Your task to perform on an android device: Open calendar and show me the fourth week of next month Image 0: 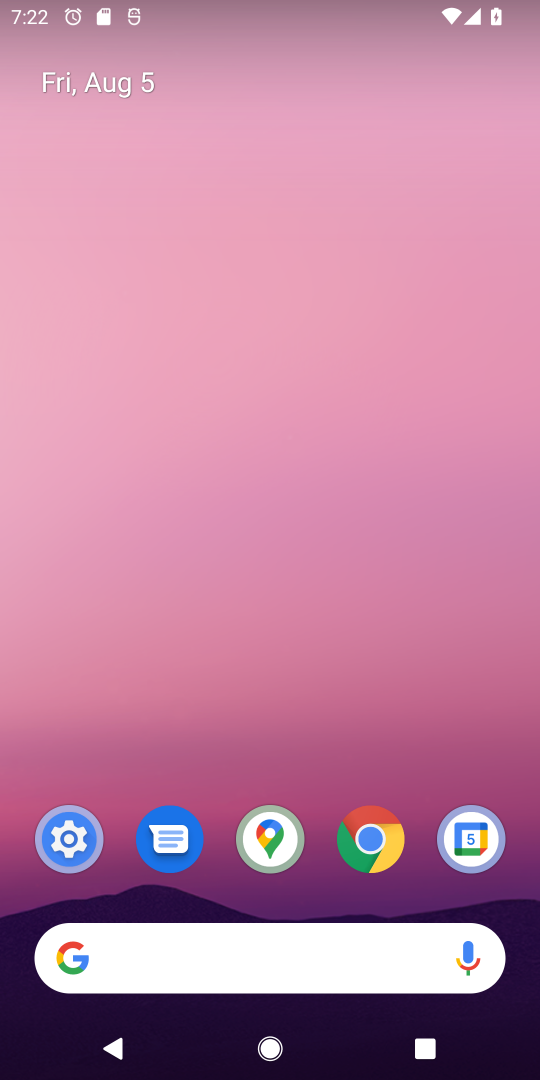
Step 0: click (463, 834)
Your task to perform on an android device: Open calendar and show me the fourth week of next month Image 1: 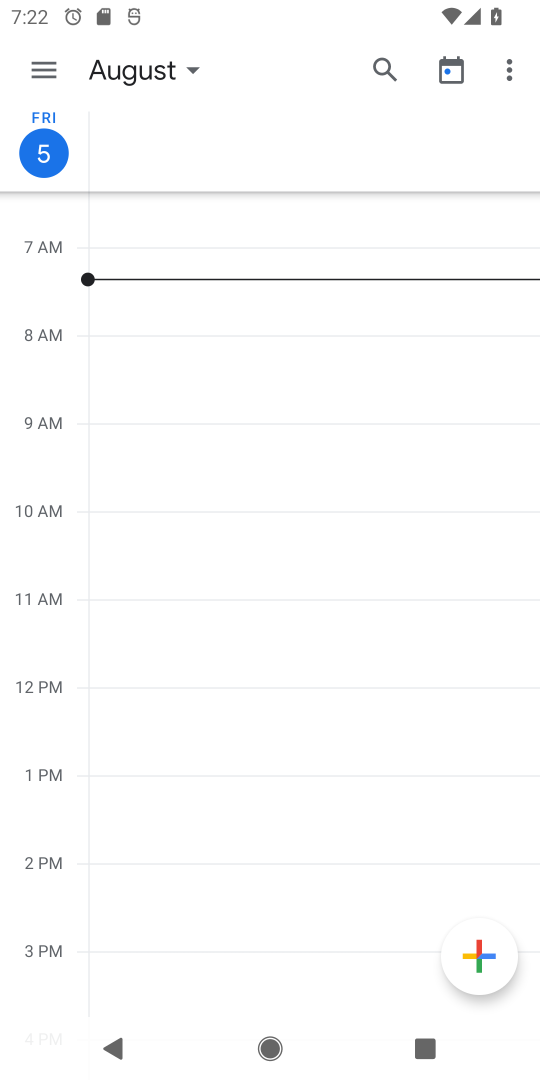
Step 1: click (198, 75)
Your task to perform on an android device: Open calendar and show me the fourth week of next month Image 2: 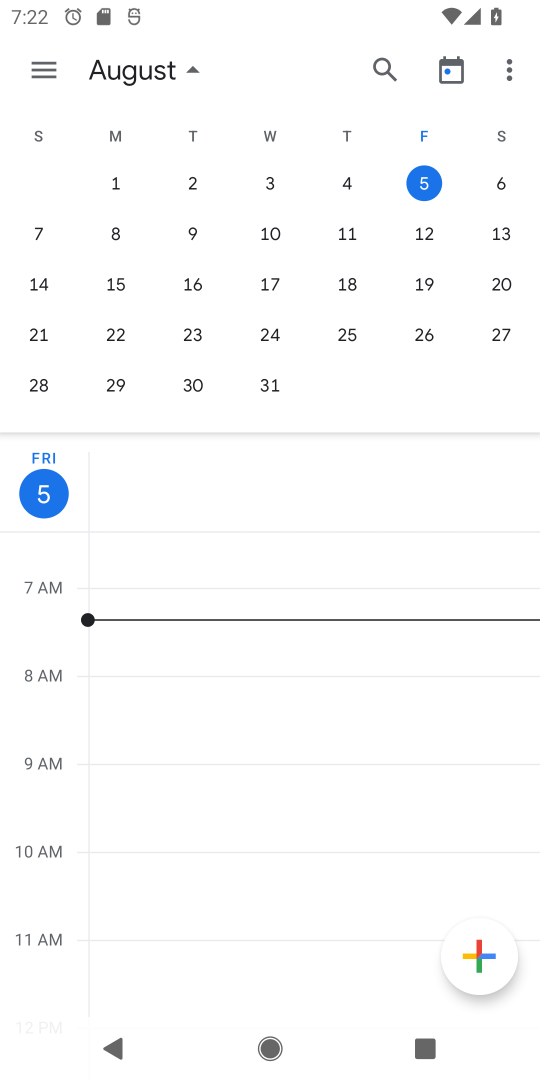
Step 2: drag from (459, 247) to (5, 254)
Your task to perform on an android device: Open calendar and show me the fourth week of next month Image 3: 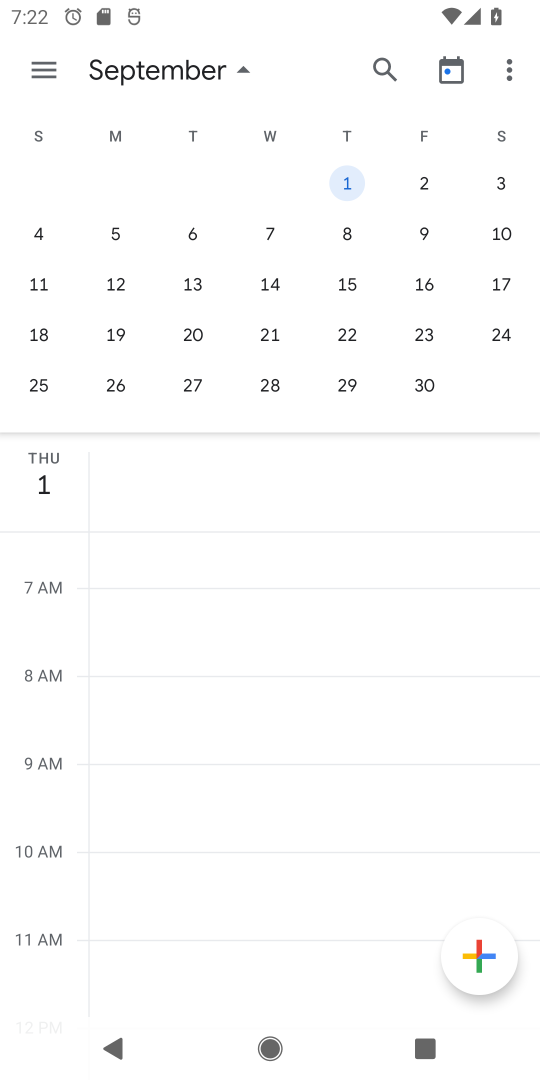
Step 3: click (37, 331)
Your task to perform on an android device: Open calendar and show me the fourth week of next month Image 4: 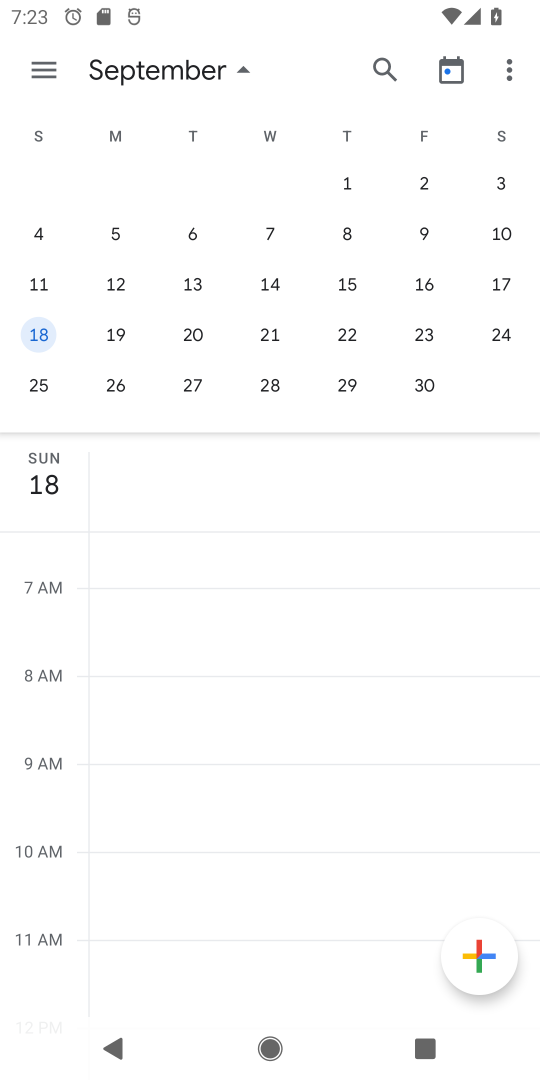
Step 4: task complete